Your task to perform on an android device: Turn off the flashlight Image 0: 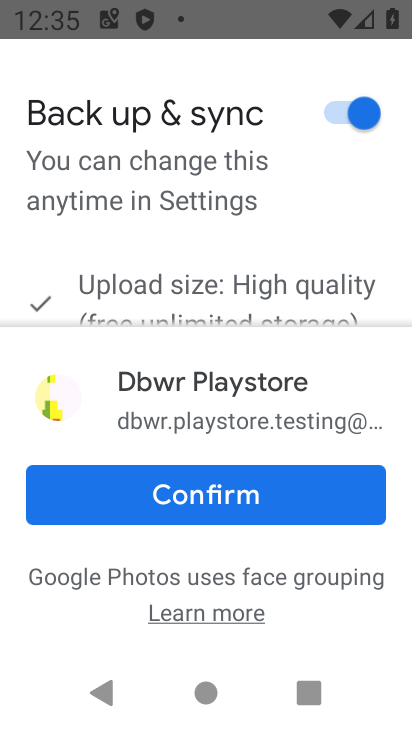
Step 0: press home button
Your task to perform on an android device: Turn off the flashlight Image 1: 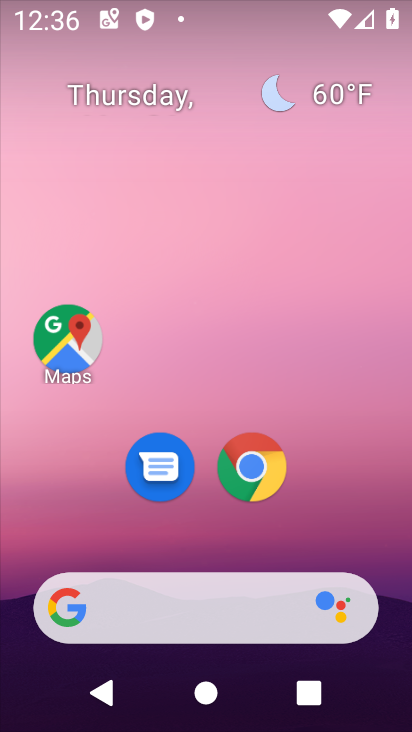
Step 1: drag from (241, 523) to (268, 337)
Your task to perform on an android device: Turn off the flashlight Image 2: 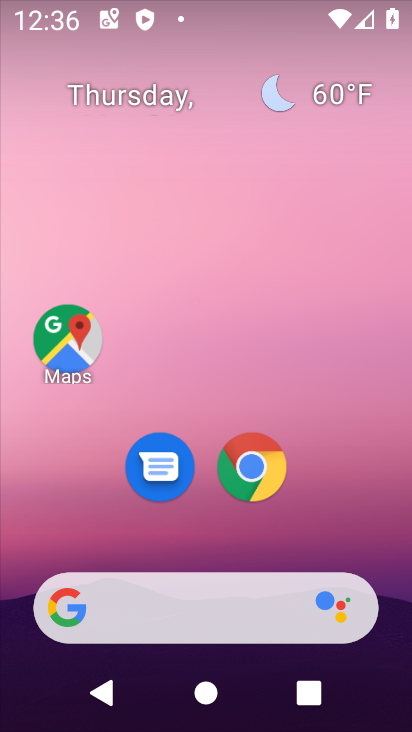
Step 2: drag from (239, 520) to (355, 61)
Your task to perform on an android device: Turn off the flashlight Image 3: 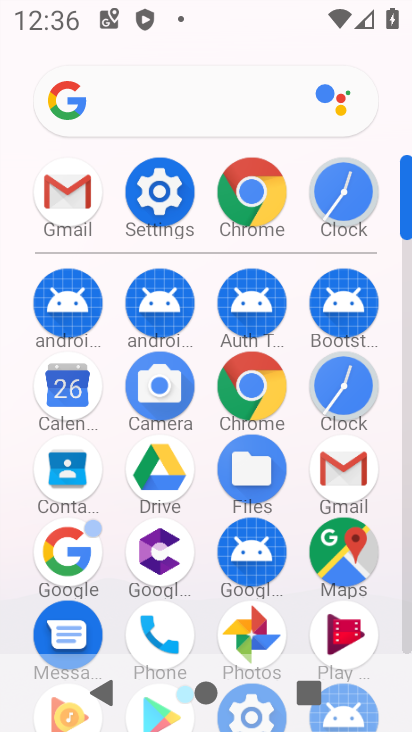
Step 3: click (150, 201)
Your task to perform on an android device: Turn off the flashlight Image 4: 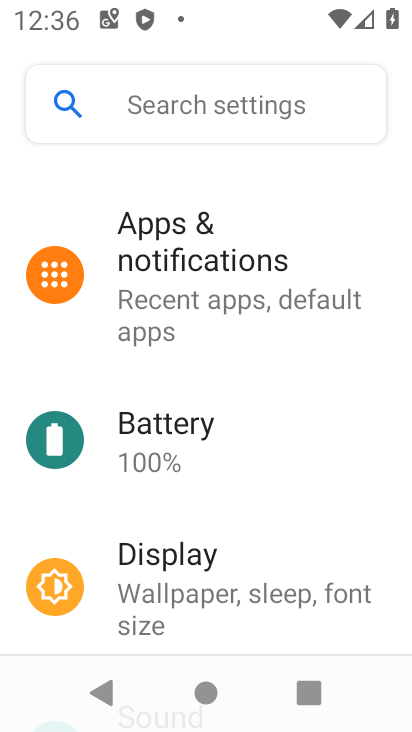
Step 4: click (211, 114)
Your task to perform on an android device: Turn off the flashlight Image 5: 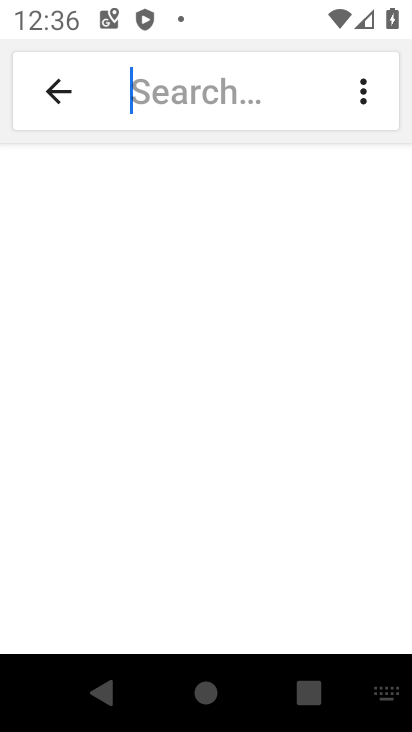
Step 5: type "flashlight"
Your task to perform on an android device: Turn off the flashlight Image 6: 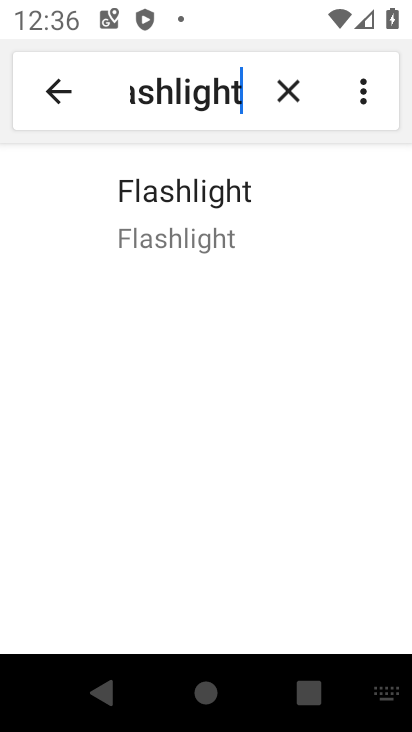
Step 6: click (199, 203)
Your task to perform on an android device: Turn off the flashlight Image 7: 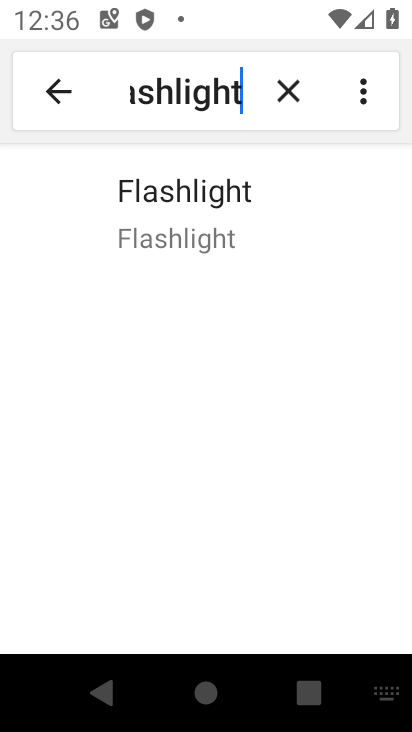
Step 7: task complete